Your task to perform on an android device: Go to Yahoo.com Image 0: 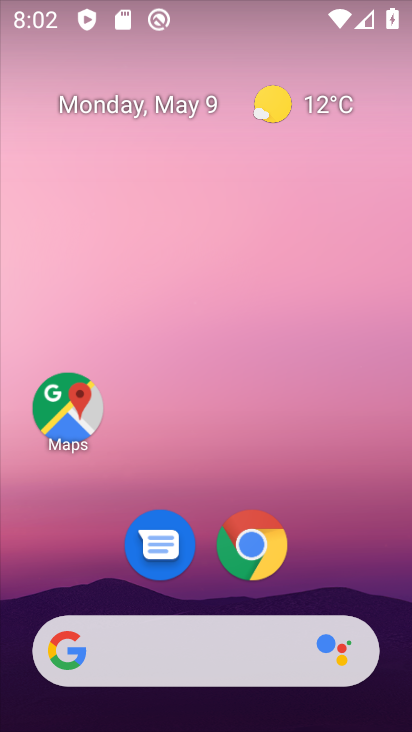
Step 0: click (253, 538)
Your task to perform on an android device: Go to Yahoo.com Image 1: 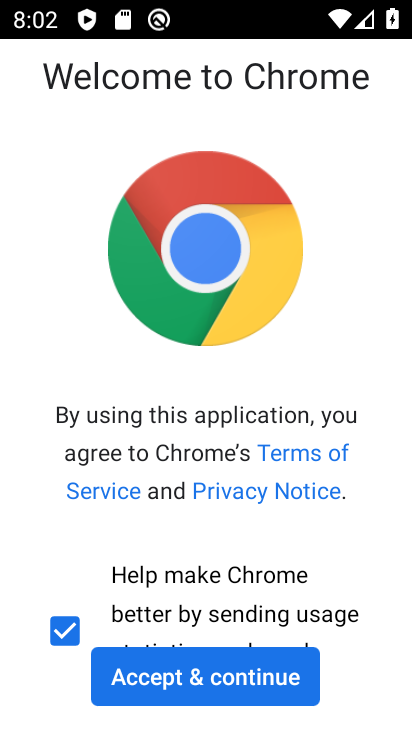
Step 1: click (262, 686)
Your task to perform on an android device: Go to Yahoo.com Image 2: 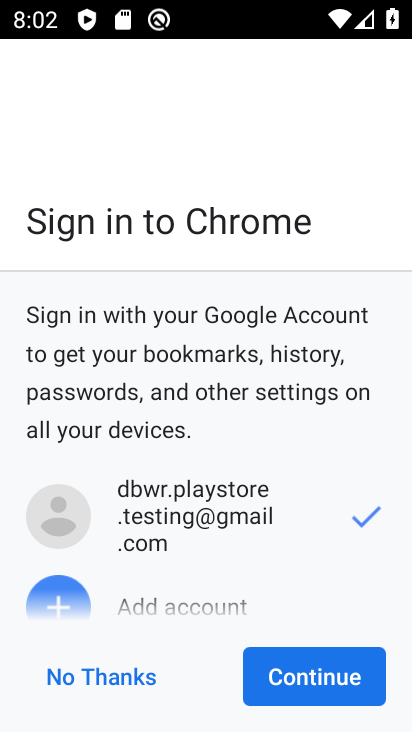
Step 2: click (294, 682)
Your task to perform on an android device: Go to Yahoo.com Image 3: 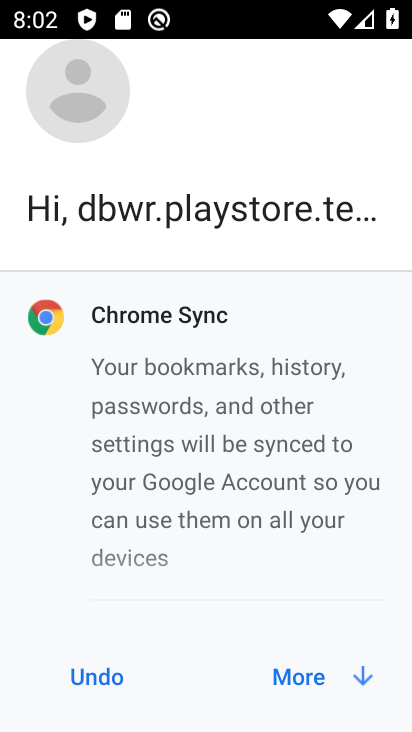
Step 3: click (306, 672)
Your task to perform on an android device: Go to Yahoo.com Image 4: 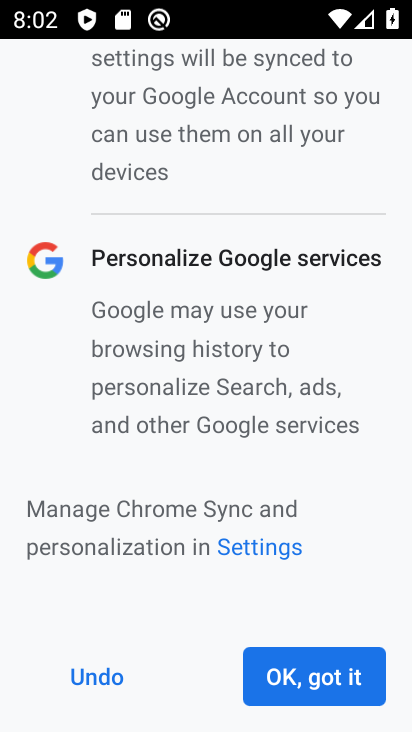
Step 4: click (306, 672)
Your task to perform on an android device: Go to Yahoo.com Image 5: 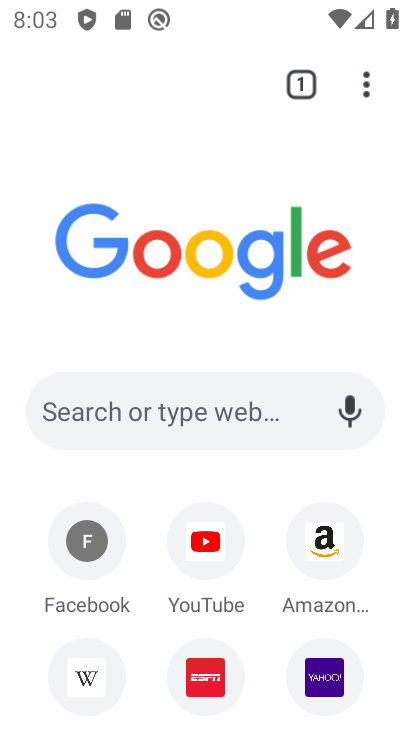
Step 5: click (228, 414)
Your task to perform on an android device: Go to Yahoo.com Image 6: 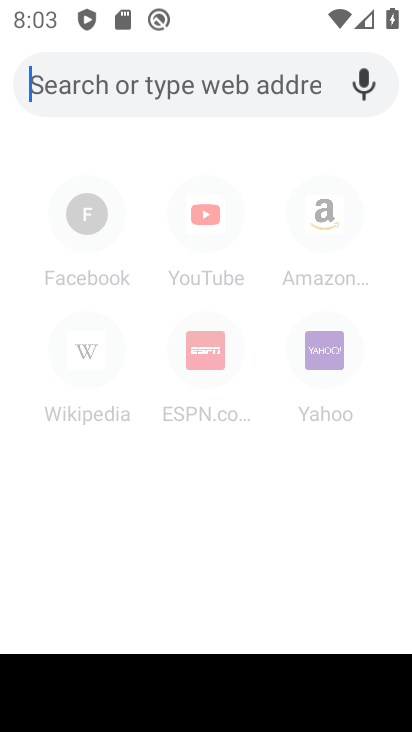
Step 6: type "yahoo.com"
Your task to perform on an android device: Go to Yahoo.com Image 7: 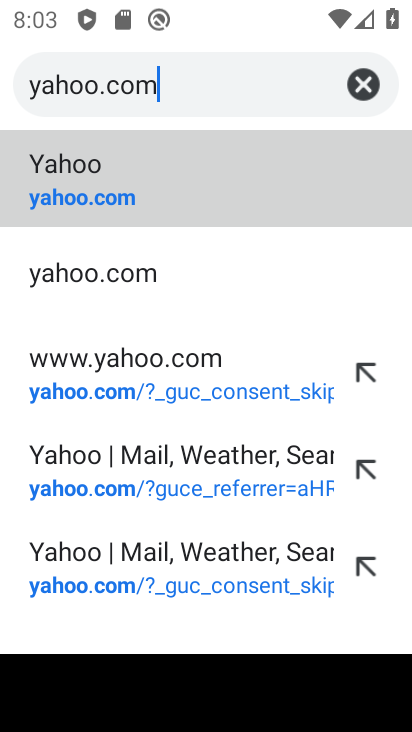
Step 7: click (68, 181)
Your task to perform on an android device: Go to Yahoo.com Image 8: 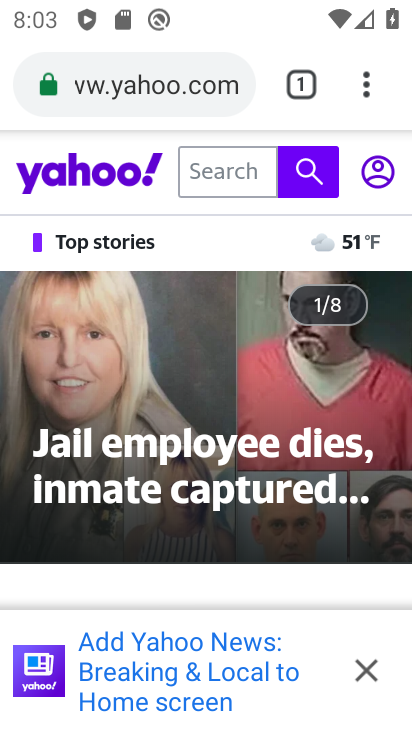
Step 8: task complete